Your task to perform on an android device: Go to accessibility settings Image 0: 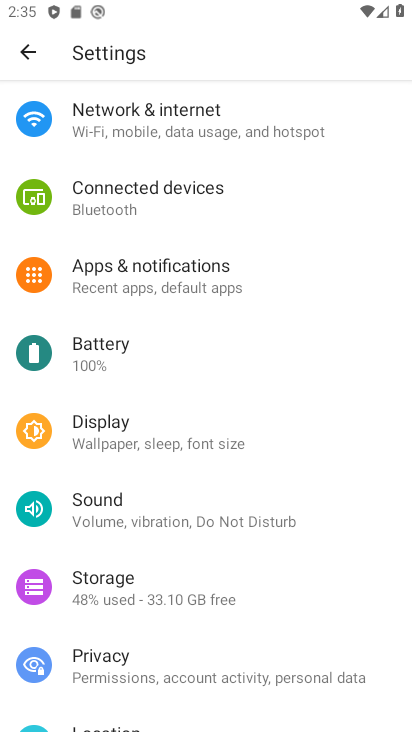
Step 0: drag from (299, 554) to (300, 288)
Your task to perform on an android device: Go to accessibility settings Image 1: 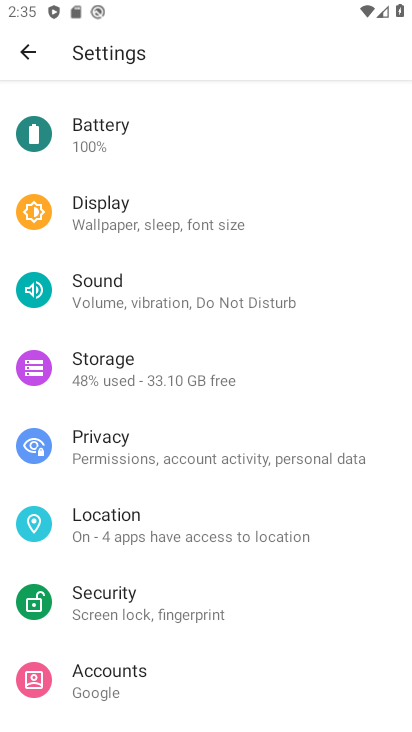
Step 1: drag from (299, 487) to (327, 231)
Your task to perform on an android device: Go to accessibility settings Image 2: 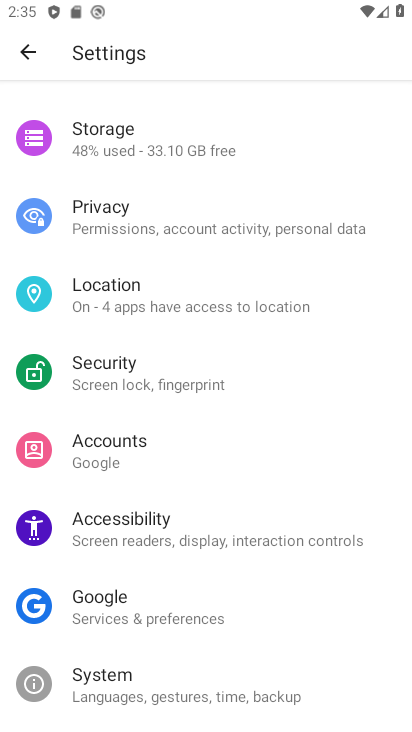
Step 2: click (132, 519)
Your task to perform on an android device: Go to accessibility settings Image 3: 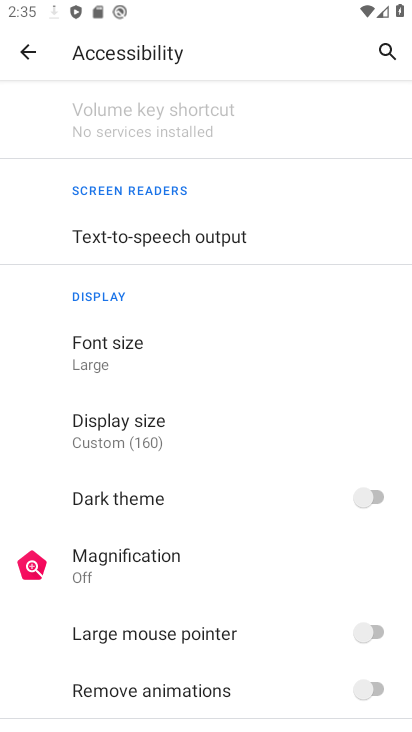
Step 3: task complete